Your task to perform on an android device: change notifications settings Image 0: 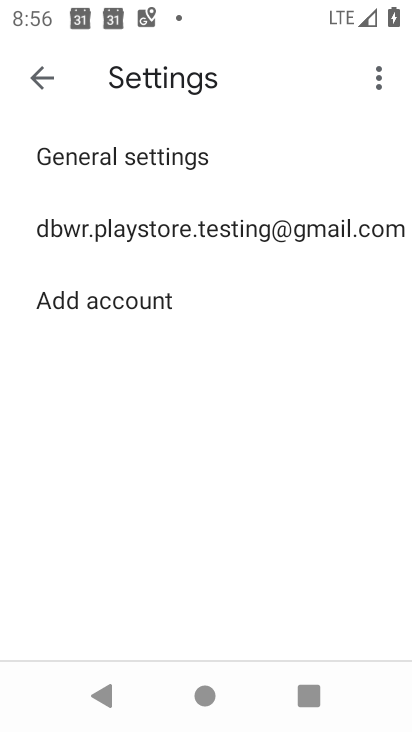
Step 0: press home button
Your task to perform on an android device: change notifications settings Image 1: 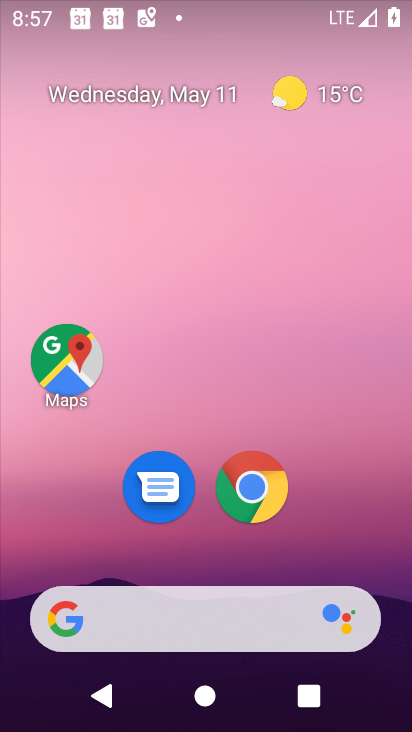
Step 1: drag from (302, 650) to (225, 187)
Your task to perform on an android device: change notifications settings Image 2: 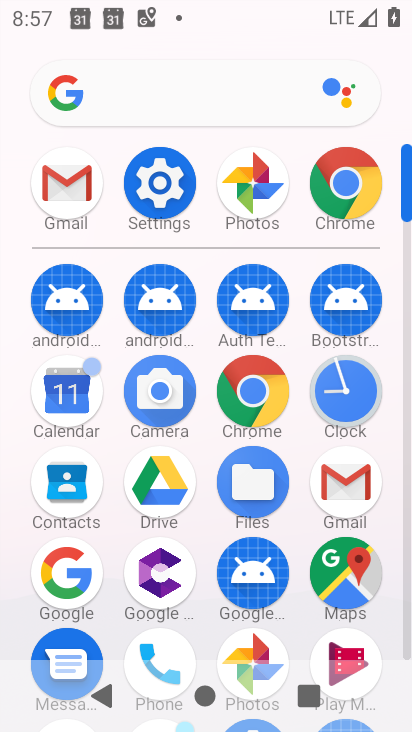
Step 2: click (162, 194)
Your task to perform on an android device: change notifications settings Image 3: 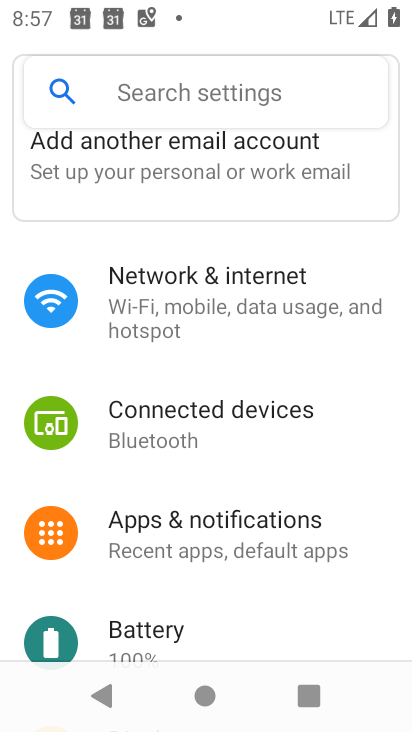
Step 3: click (161, 101)
Your task to perform on an android device: change notifications settings Image 4: 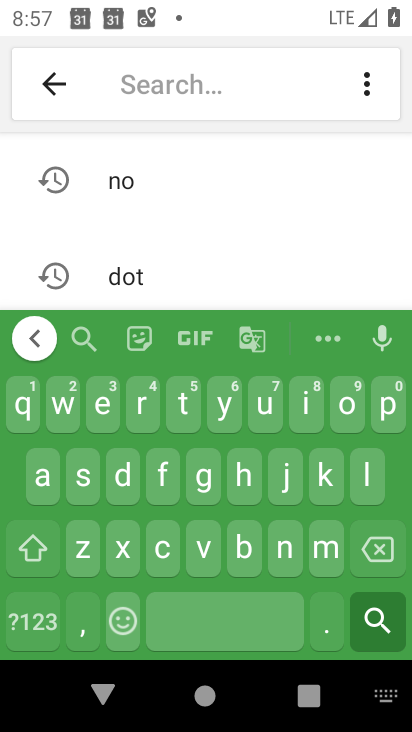
Step 4: click (146, 182)
Your task to perform on an android device: change notifications settings Image 5: 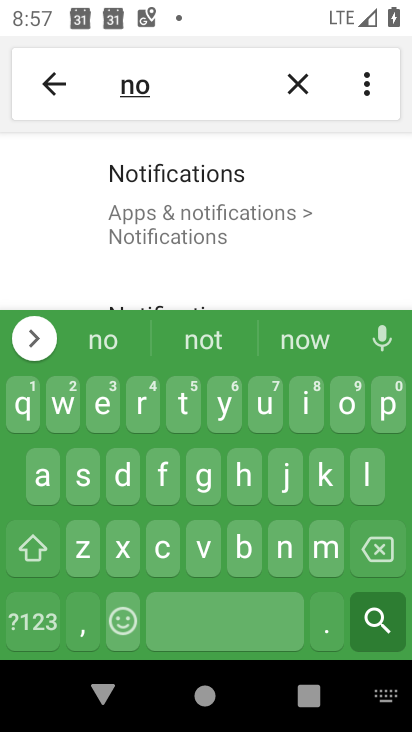
Step 5: click (129, 175)
Your task to perform on an android device: change notifications settings Image 6: 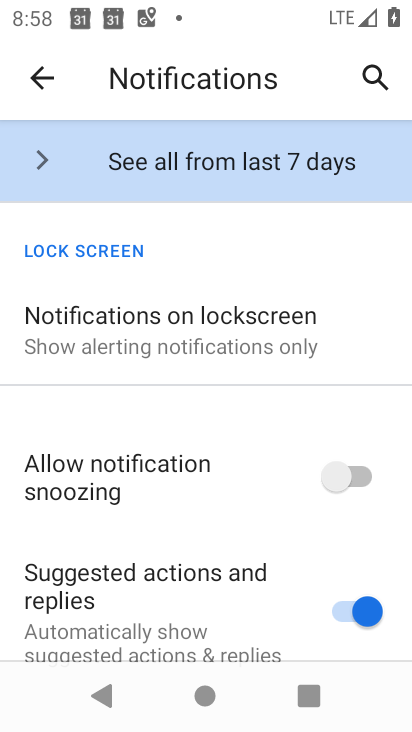
Step 6: click (115, 357)
Your task to perform on an android device: change notifications settings Image 7: 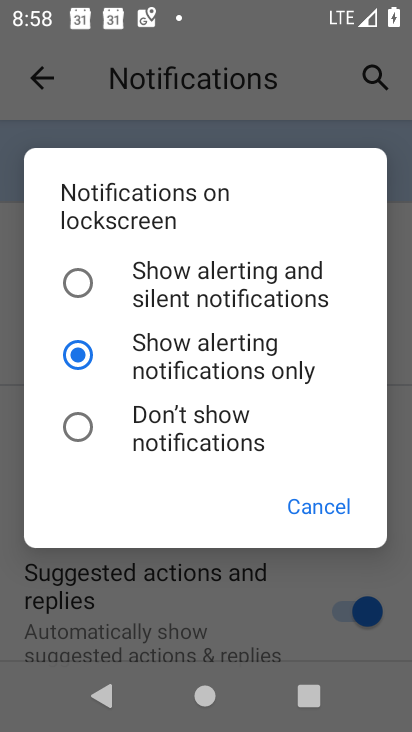
Step 7: task complete